Your task to perform on an android device: allow notifications from all sites in the chrome app Image 0: 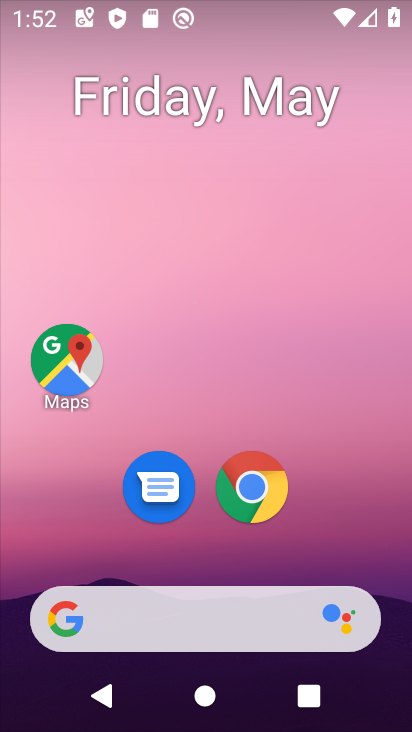
Step 0: click (262, 496)
Your task to perform on an android device: allow notifications from all sites in the chrome app Image 1: 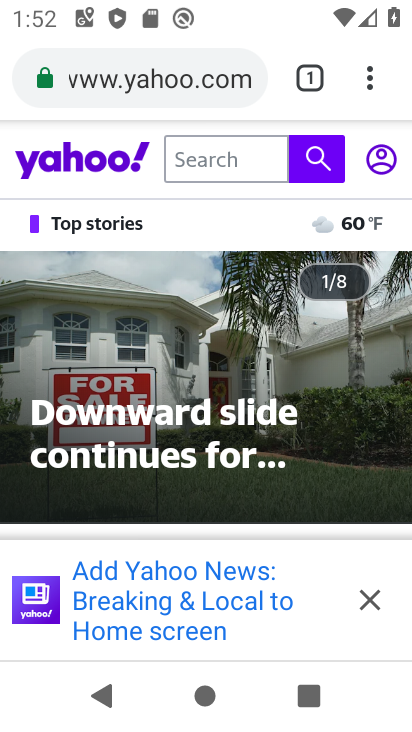
Step 1: click (371, 81)
Your task to perform on an android device: allow notifications from all sites in the chrome app Image 2: 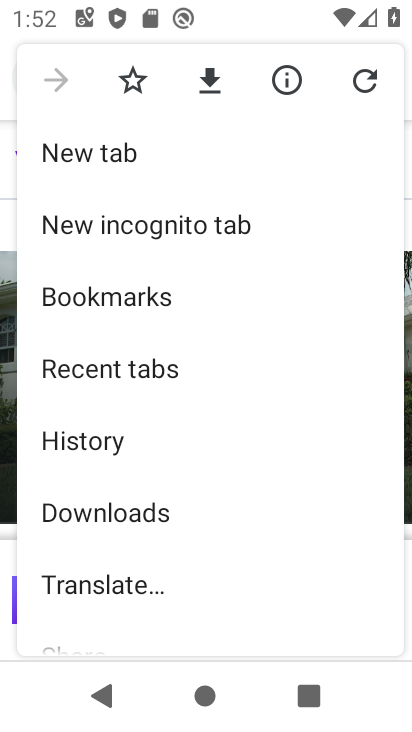
Step 2: drag from (182, 549) to (180, 137)
Your task to perform on an android device: allow notifications from all sites in the chrome app Image 3: 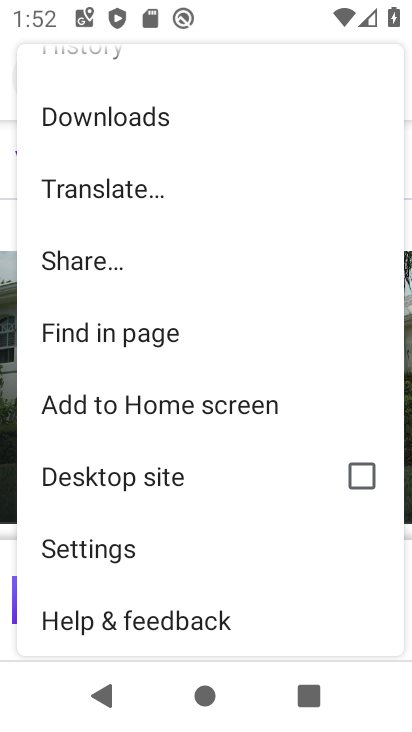
Step 3: click (126, 550)
Your task to perform on an android device: allow notifications from all sites in the chrome app Image 4: 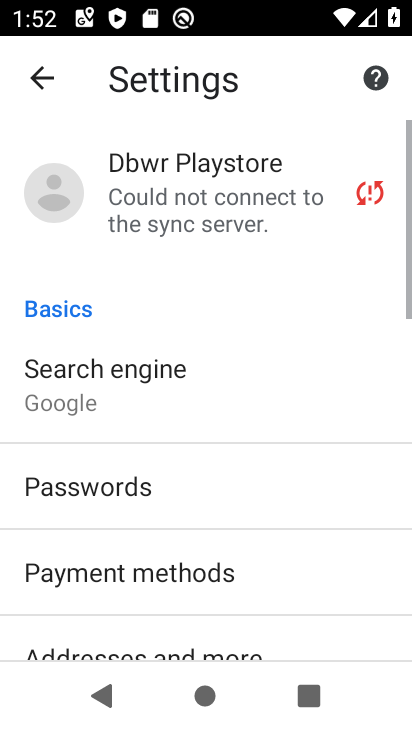
Step 4: drag from (183, 611) to (174, 169)
Your task to perform on an android device: allow notifications from all sites in the chrome app Image 5: 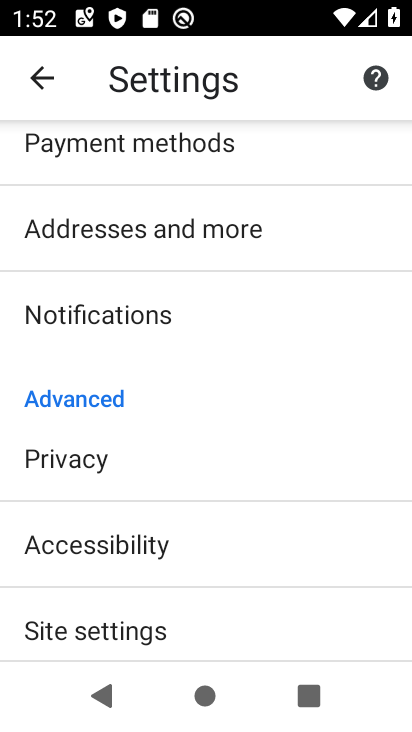
Step 5: drag from (182, 503) to (173, 240)
Your task to perform on an android device: allow notifications from all sites in the chrome app Image 6: 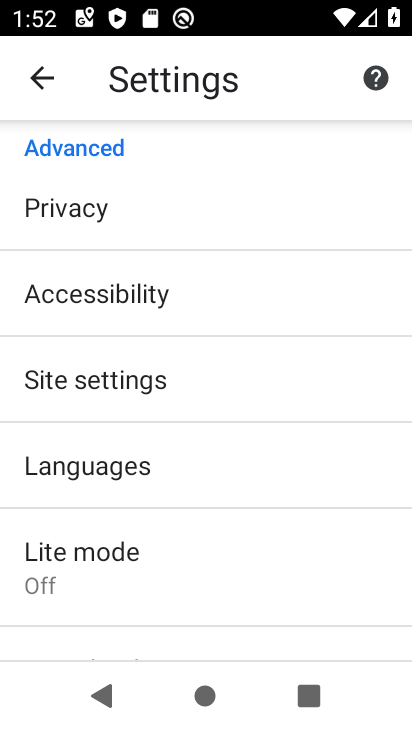
Step 6: click (133, 386)
Your task to perform on an android device: allow notifications from all sites in the chrome app Image 7: 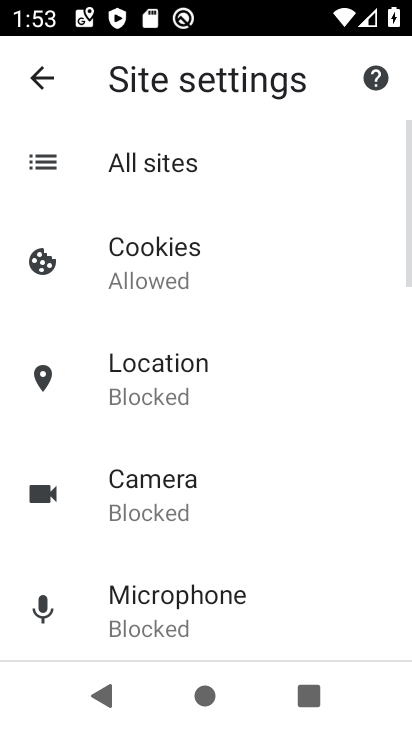
Step 7: drag from (206, 511) to (211, 229)
Your task to perform on an android device: allow notifications from all sites in the chrome app Image 8: 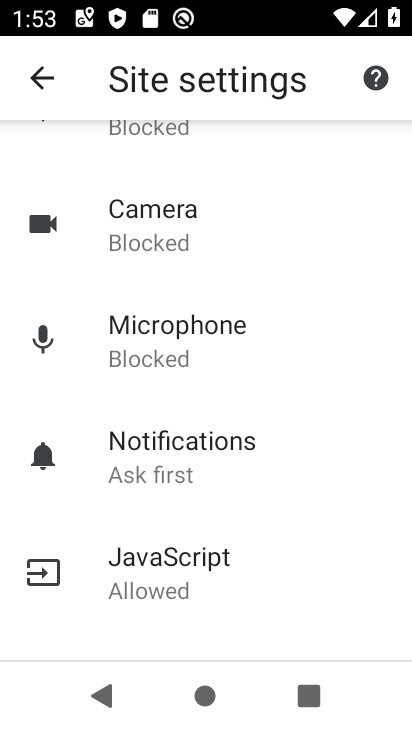
Step 8: click (176, 446)
Your task to perform on an android device: allow notifications from all sites in the chrome app Image 9: 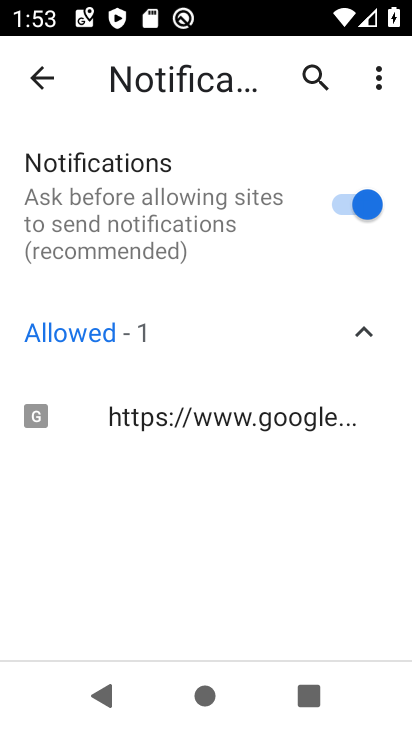
Step 9: task complete